Your task to perform on an android device: Show me popular videos on Youtube Image 0: 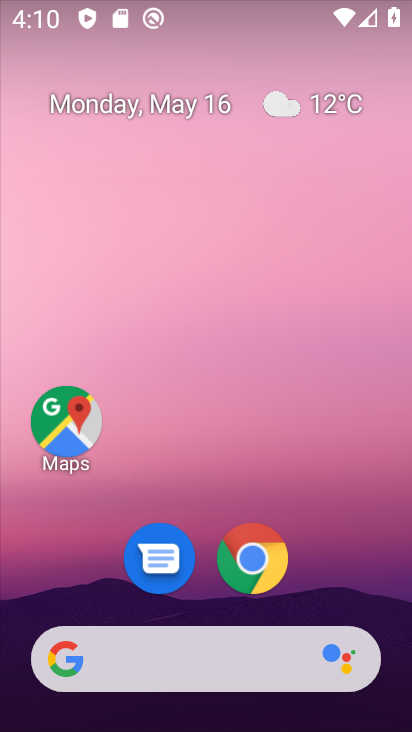
Step 0: drag from (313, 552) to (310, 164)
Your task to perform on an android device: Show me popular videos on Youtube Image 1: 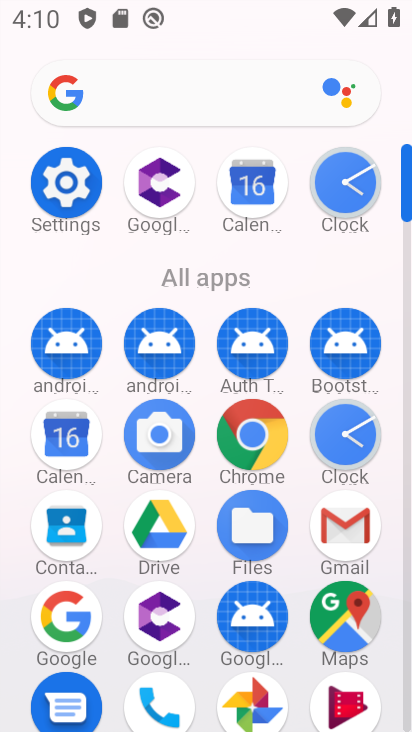
Step 1: drag from (288, 684) to (299, 231)
Your task to perform on an android device: Show me popular videos on Youtube Image 2: 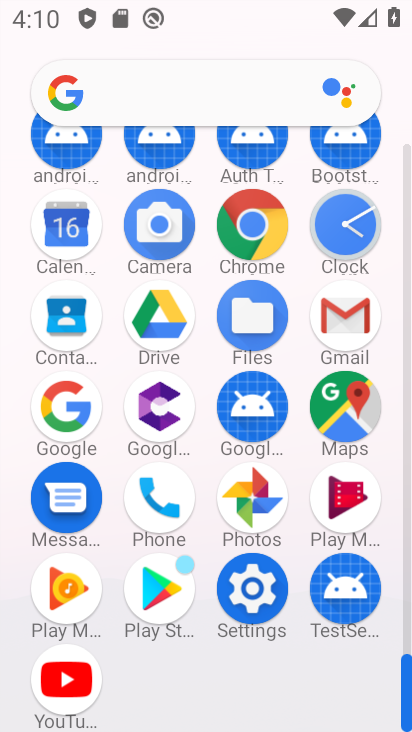
Step 2: click (70, 699)
Your task to perform on an android device: Show me popular videos on Youtube Image 3: 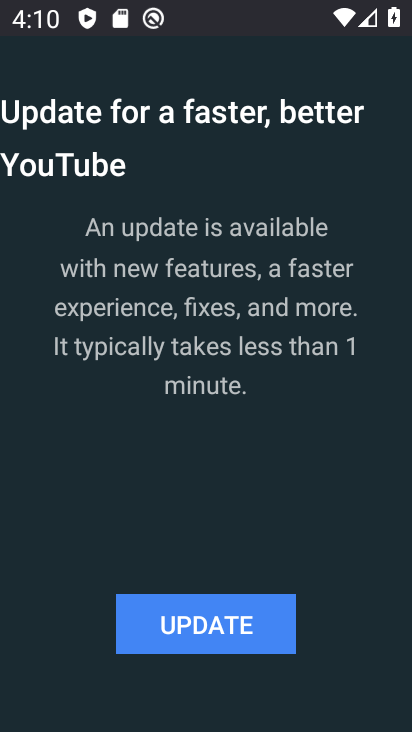
Step 3: click (237, 636)
Your task to perform on an android device: Show me popular videos on Youtube Image 4: 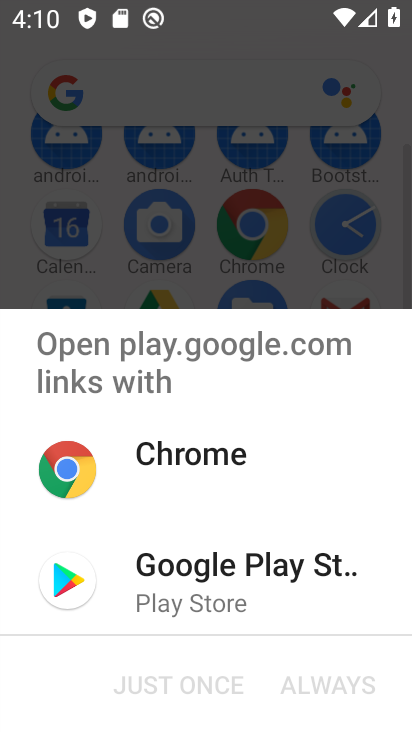
Step 4: click (197, 587)
Your task to perform on an android device: Show me popular videos on Youtube Image 5: 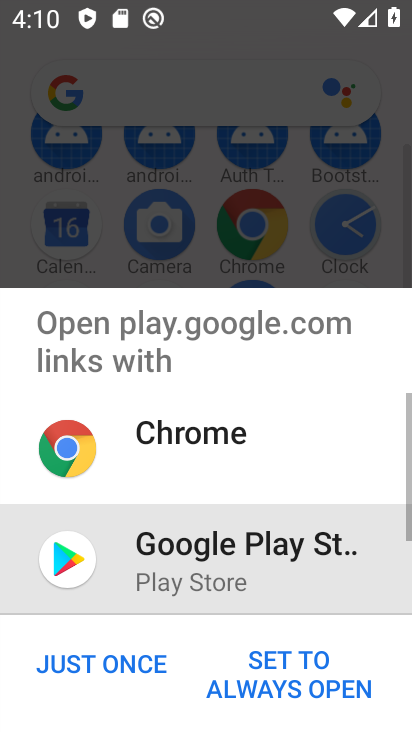
Step 5: click (154, 670)
Your task to perform on an android device: Show me popular videos on Youtube Image 6: 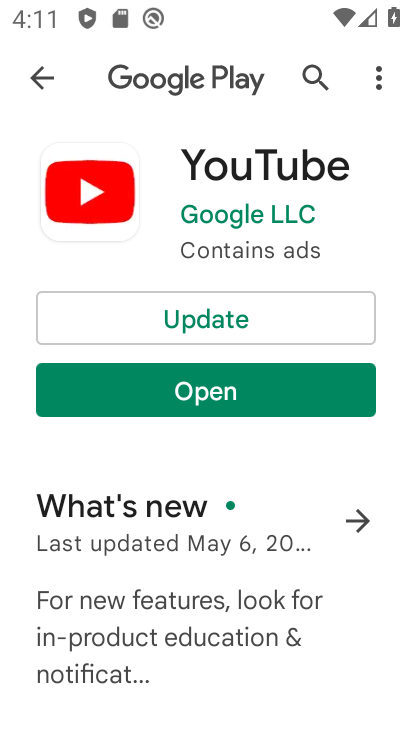
Step 6: click (214, 327)
Your task to perform on an android device: Show me popular videos on Youtube Image 7: 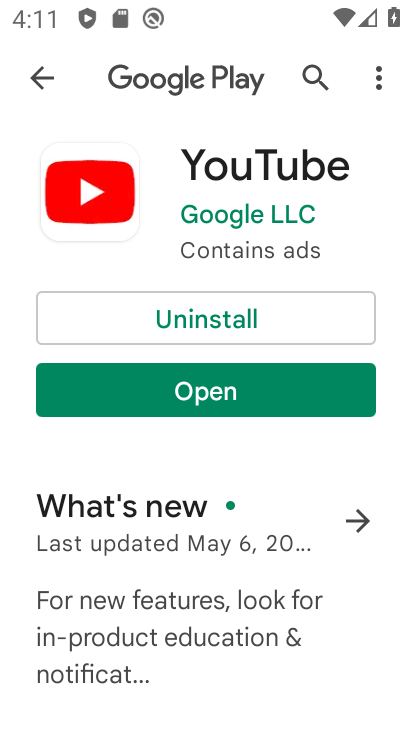
Step 7: click (290, 387)
Your task to perform on an android device: Show me popular videos on Youtube Image 8: 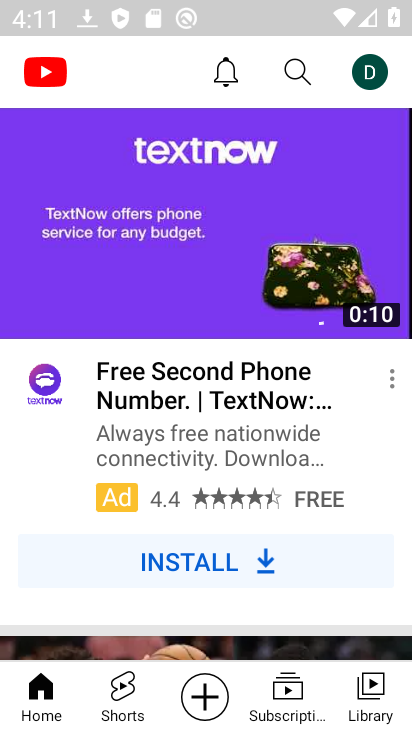
Step 8: drag from (248, 662) to (273, 225)
Your task to perform on an android device: Show me popular videos on Youtube Image 9: 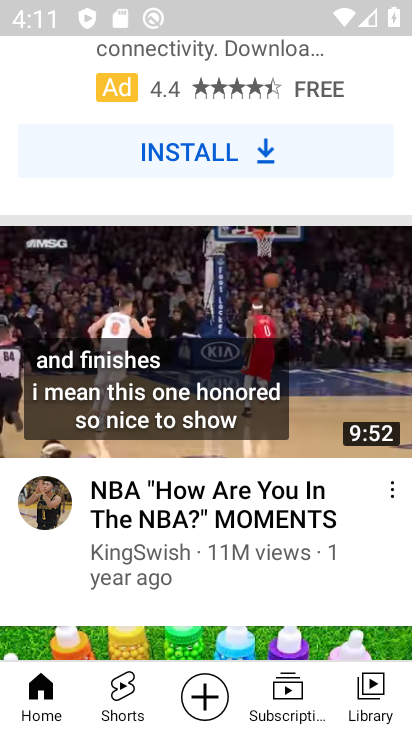
Step 9: drag from (336, 337) to (324, 641)
Your task to perform on an android device: Show me popular videos on Youtube Image 10: 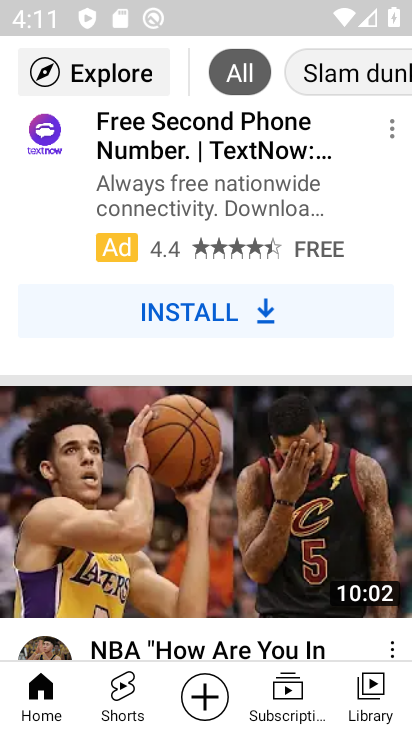
Step 10: click (372, 46)
Your task to perform on an android device: Show me popular videos on Youtube Image 11: 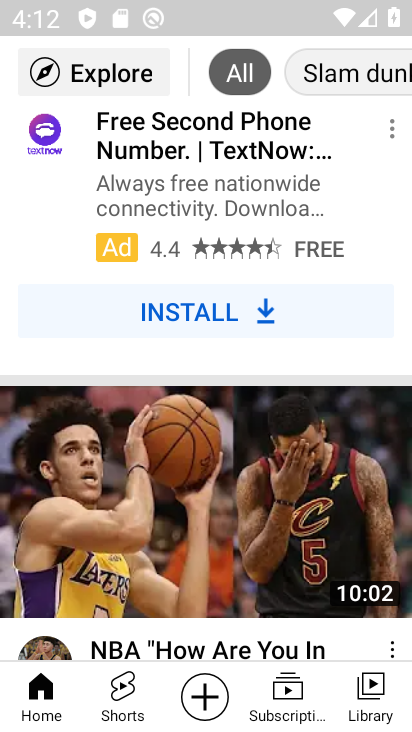
Step 11: drag from (365, 204) to (355, 514)
Your task to perform on an android device: Show me popular videos on Youtube Image 12: 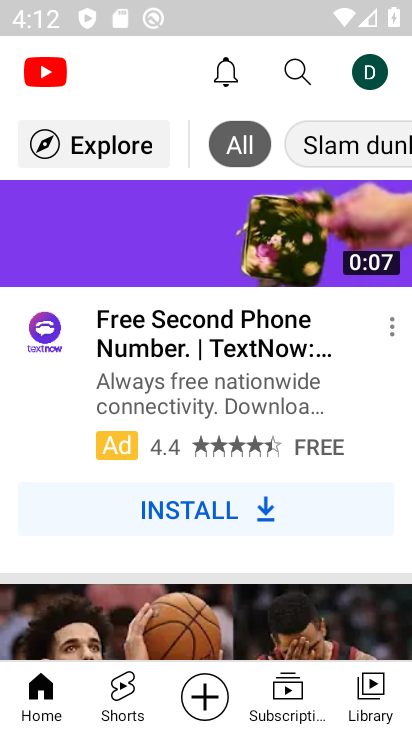
Step 12: click (367, 74)
Your task to perform on an android device: Show me popular videos on Youtube Image 13: 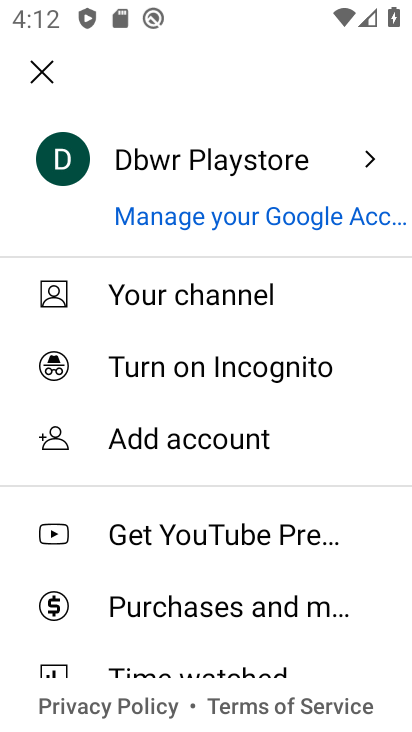
Step 13: task complete